Your task to perform on an android device: When is my next appointment? Image 0: 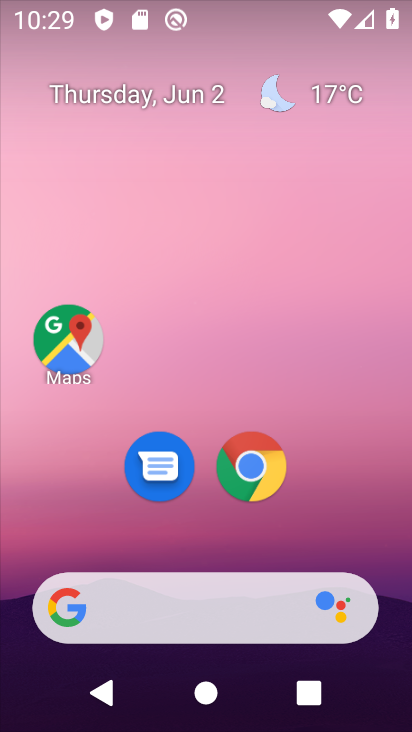
Step 0: press home button
Your task to perform on an android device: When is my next appointment? Image 1: 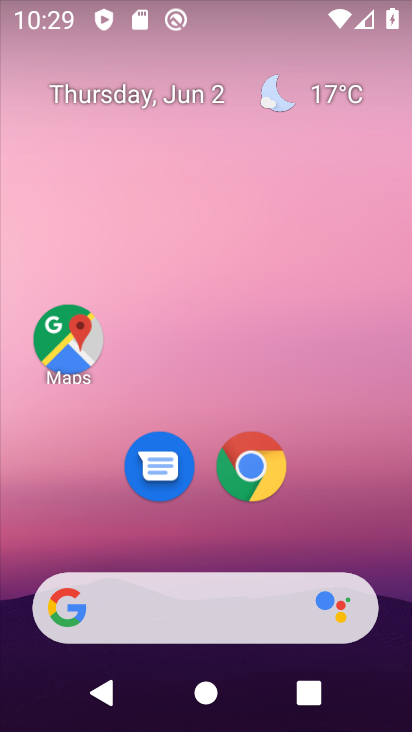
Step 1: click (238, 89)
Your task to perform on an android device: When is my next appointment? Image 2: 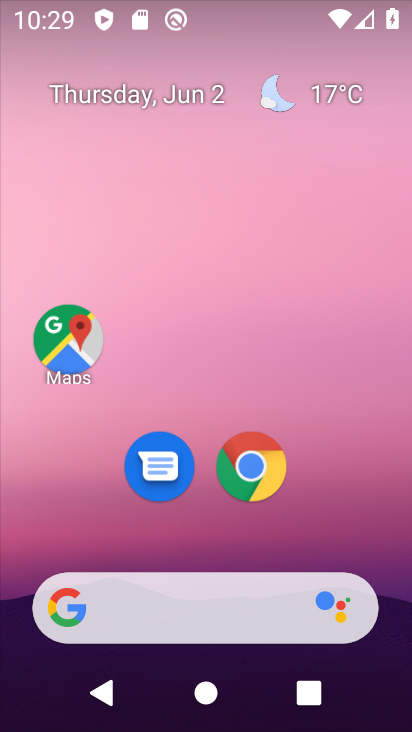
Step 2: drag from (217, 537) to (249, 101)
Your task to perform on an android device: When is my next appointment? Image 3: 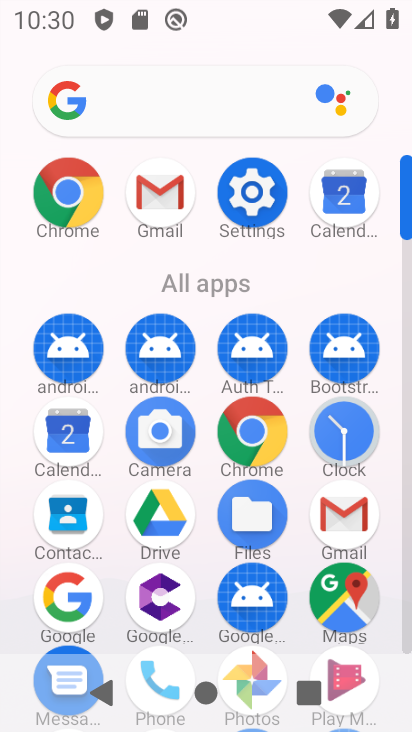
Step 3: click (346, 202)
Your task to perform on an android device: When is my next appointment? Image 4: 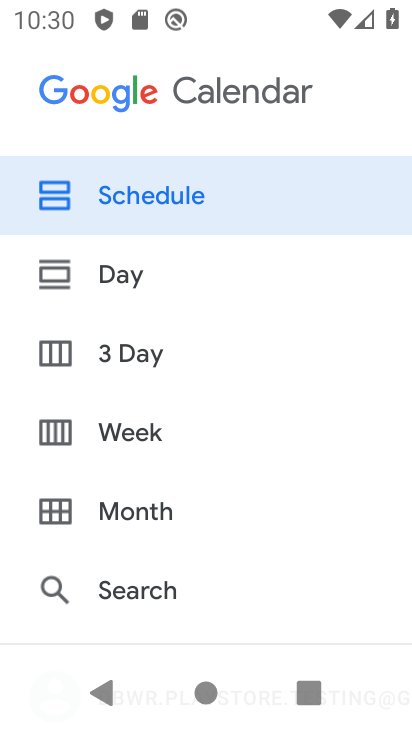
Step 4: click (178, 209)
Your task to perform on an android device: When is my next appointment? Image 5: 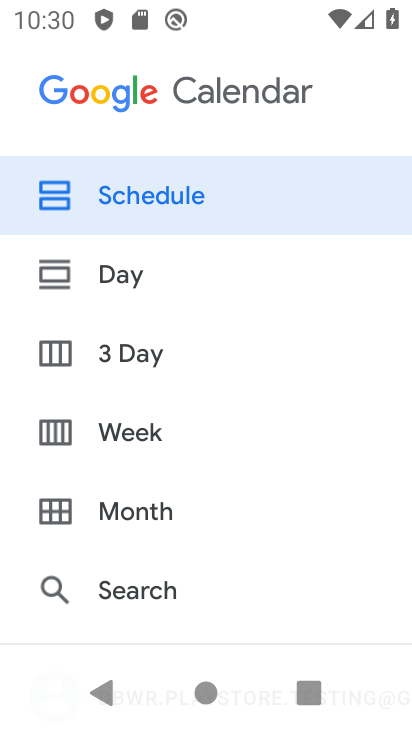
Step 5: click (209, 214)
Your task to perform on an android device: When is my next appointment? Image 6: 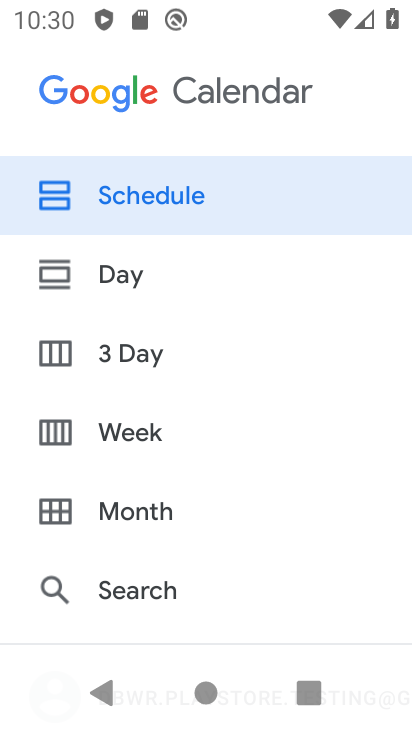
Step 6: click (221, 201)
Your task to perform on an android device: When is my next appointment? Image 7: 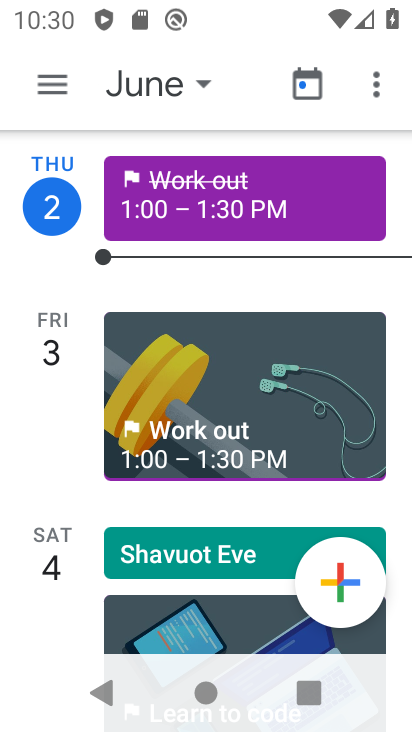
Step 7: task complete